Your task to perform on an android device: Open ESPN.com Image 0: 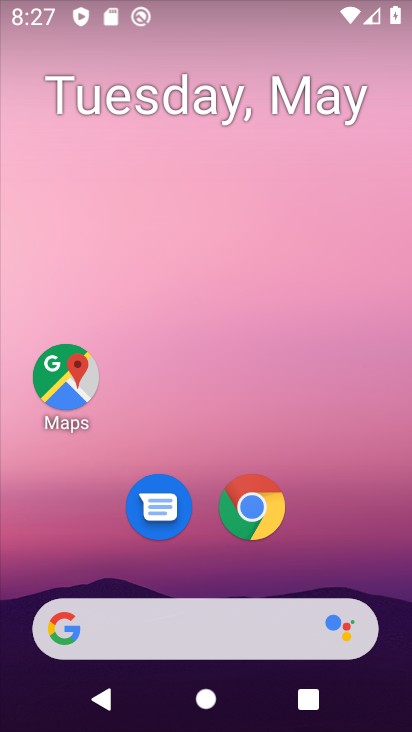
Step 0: click (274, 532)
Your task to perform on an android device: Open ESPN.com Image 1: 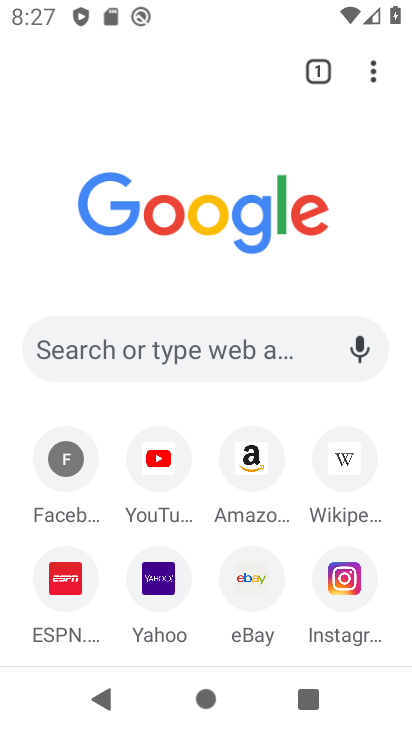
Step 1: click (72, 597)
Your task to perform on an android device: Open ESPN.com Image 2: 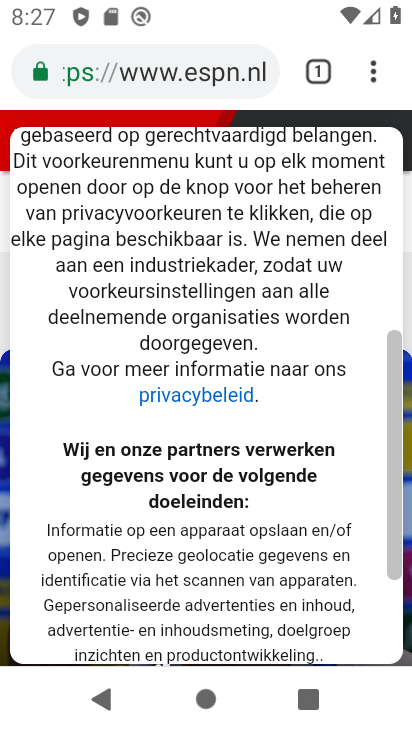
Step 2: task complete